Your task to perform on an android device: Show me popular videos on Youtube Image 0: 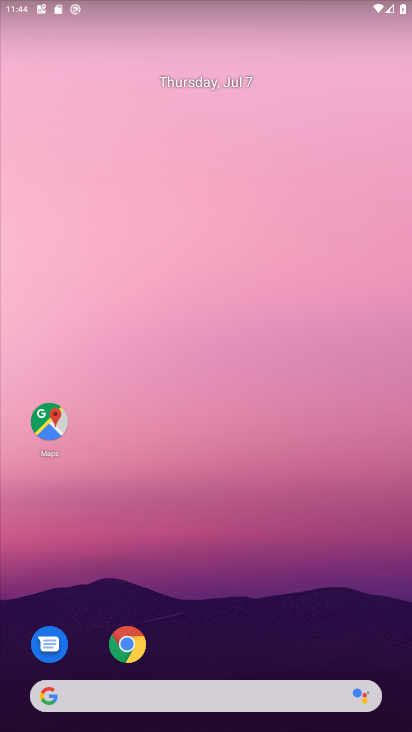
Step 0: drag from (29, 706) to (113, 276)
Your task to perform on an android device: Show me popular videos on Youtube Image 1: 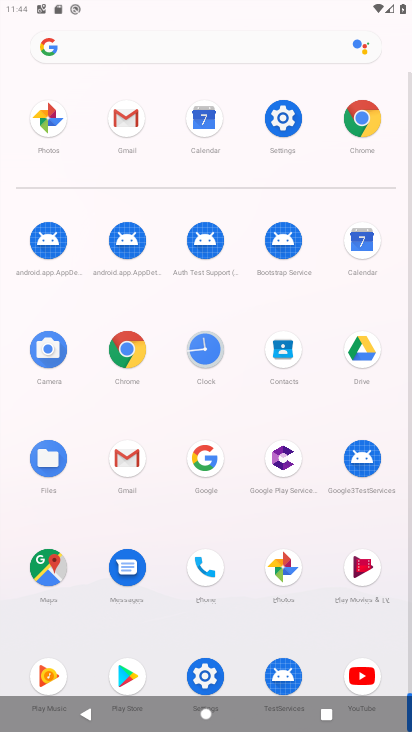
Step 1: click (369, 672)
Your task to perform on an android device: Show me popular videos on Youtube Image 2: 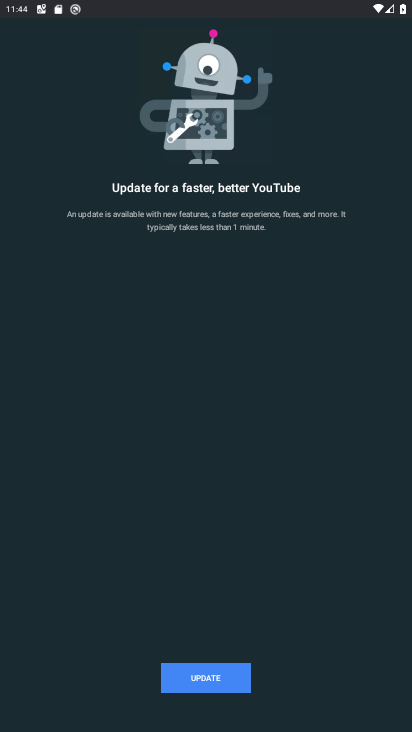
Step 2: click (201, 693)
Your task to perform on an android device: Show me popular videos on Youtube Image 3: 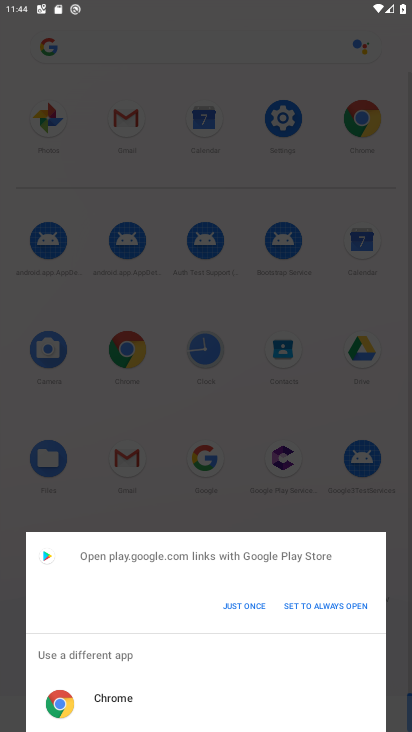
Step 3: click (234, 603)
Your task to perform on an android device: Show me popular videos on Youtube Image 4: 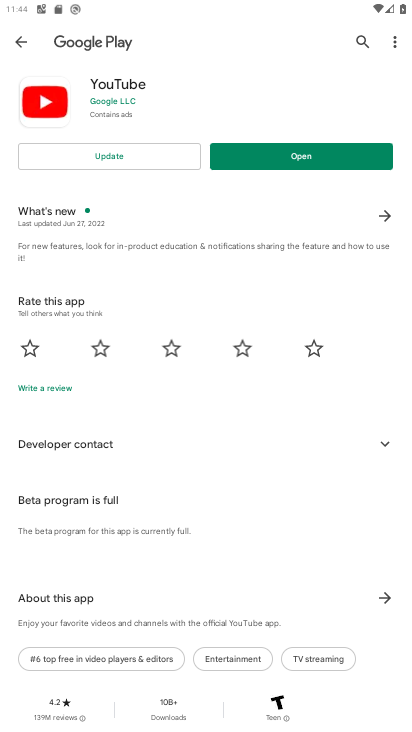
Step 4: click (292, 149)
Your task to perform on an android device: Show me popular videos on Youtube Image 5: 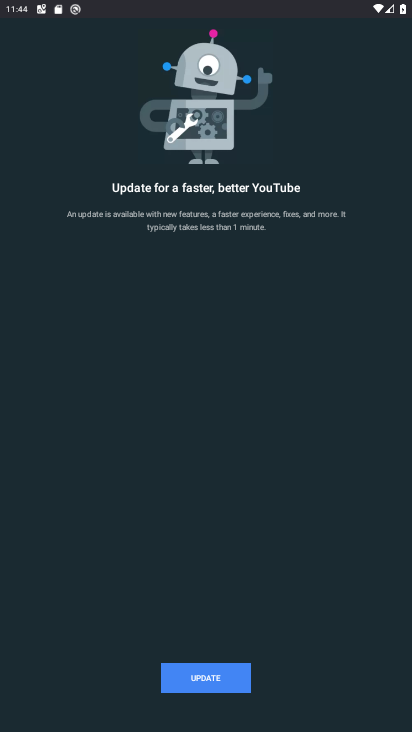
Step 5: task complete